Your task to perform on an android device: Add energizer triple a to the cart on costco.com Image 0: 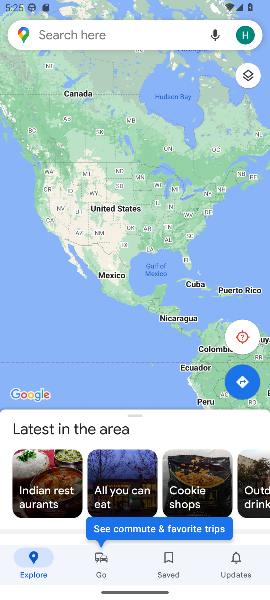
Step 0: press home button
Your task to perform on an android device: Add energizer triple a to the cart on costco.com Image 1: 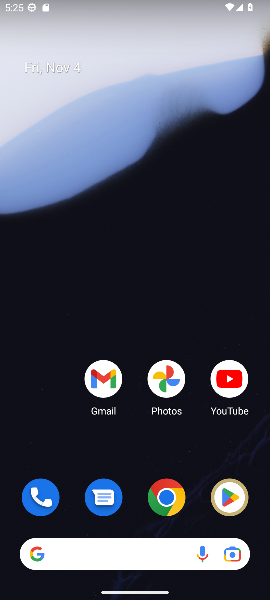
Step 1: click (169, 501)
Your task to perform on an android device: Add energizer triple a to the cart on costco.com Image 2: 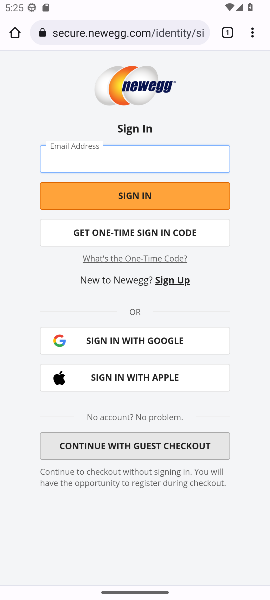
Step 2: click (108, 31)
Your task to perform on an android device: Add energizer triple a to the cart on costco.com Image 3: 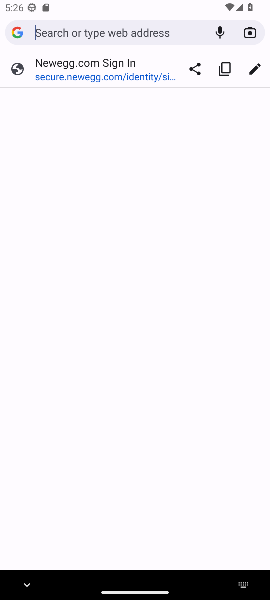
Step 3: type "costco.com"
Your task to perform on an android device: Add energizer triple a to the cart on costco.com Image 4: 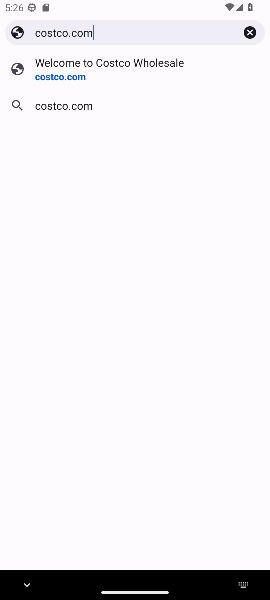
Step 4: click (77, 77)
Your task to perform on an android device: Add energizer triple a to the cart on costco.com Image 5: 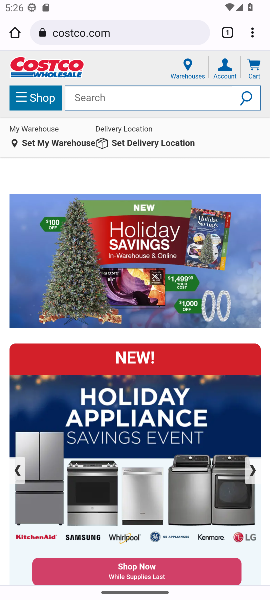
Step 5: click (94, 98)
Your task to perform on an android device: Add energizer triple a to the cart on costco.com Image 6: 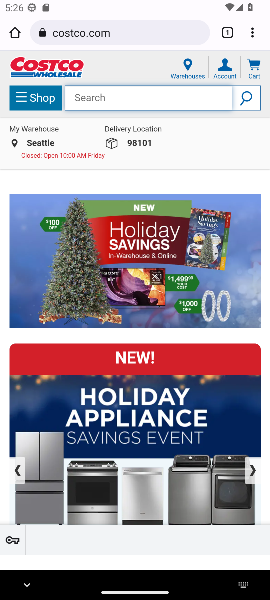
Step 6: type "energizer triple a"
Your task to perform on an android device: Add energizer triple a to the cart on costco.com Image 7: 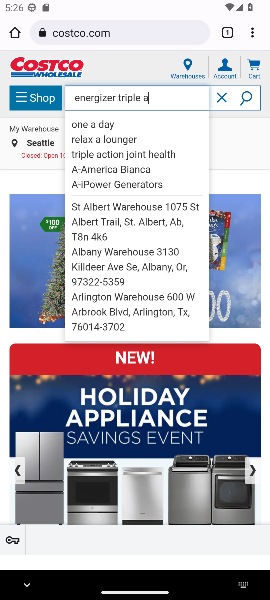
Step 7: click (250, 100)
Your task to perform on an android device: Add energizer triple a to the cart on costco.com Image 8: 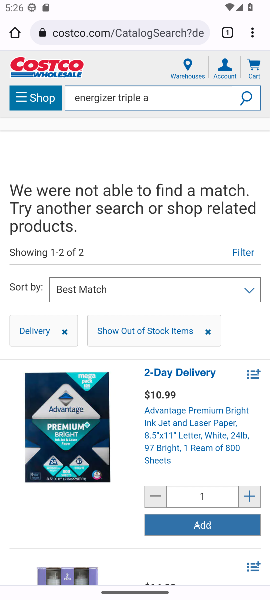
Step 8: task complete